Your task to perform on an android device: Open calendar and show me the second week of next month Image 0: 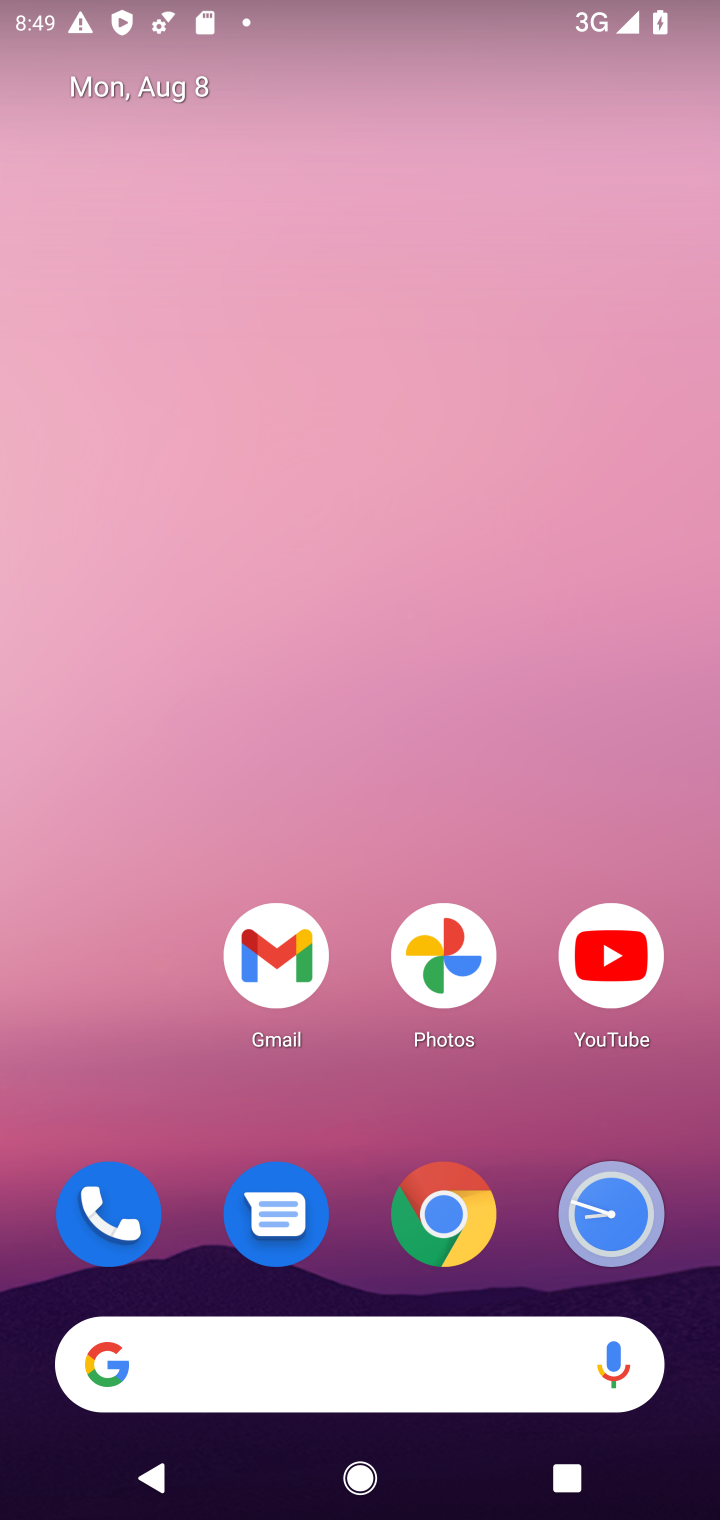
Step 0: drag from (270, 1077) to (296, 165)
Your task to perform on an android device: Open calendar and show me the second week of next month Image 1: 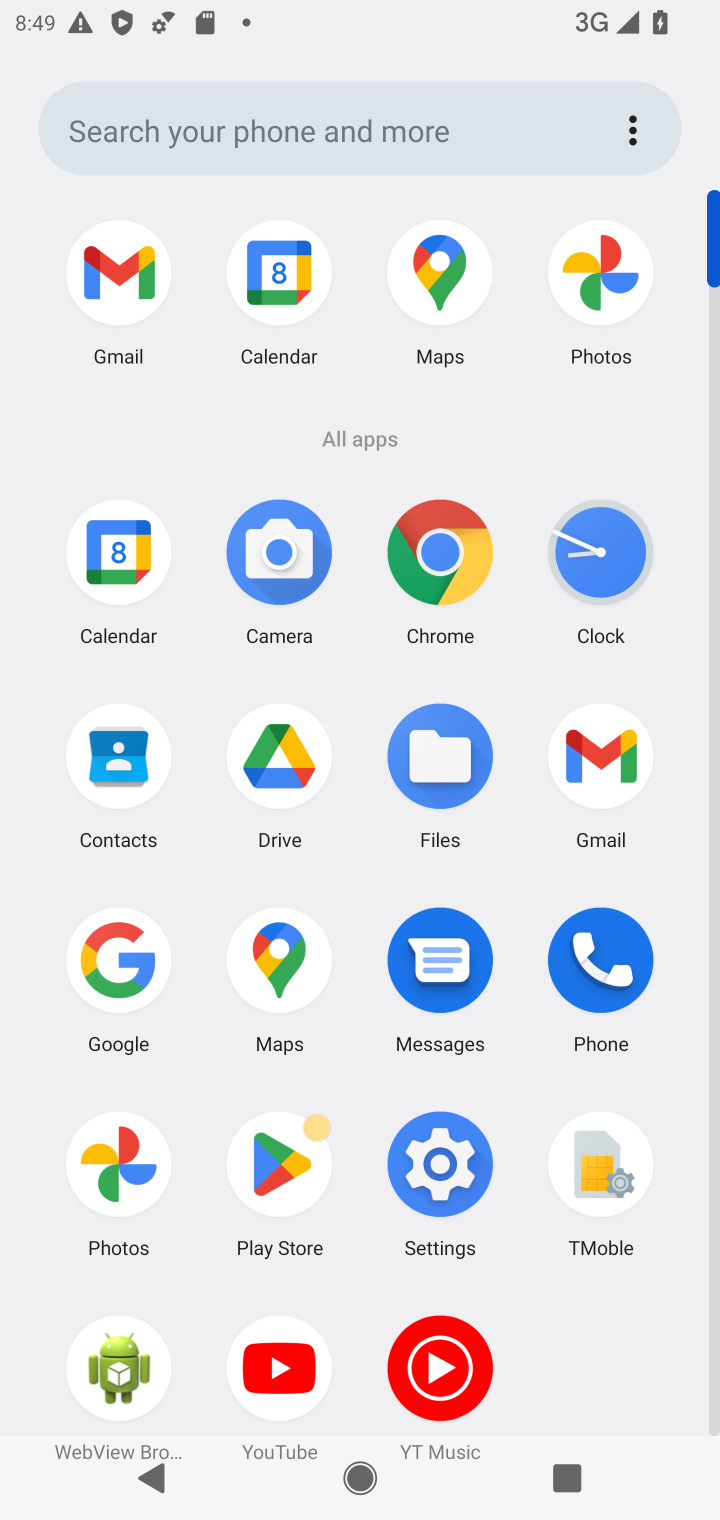
Step 1: click (273, 254)
Your task to perform on an android device: Open calendar and show me the second week of next month Image 2: 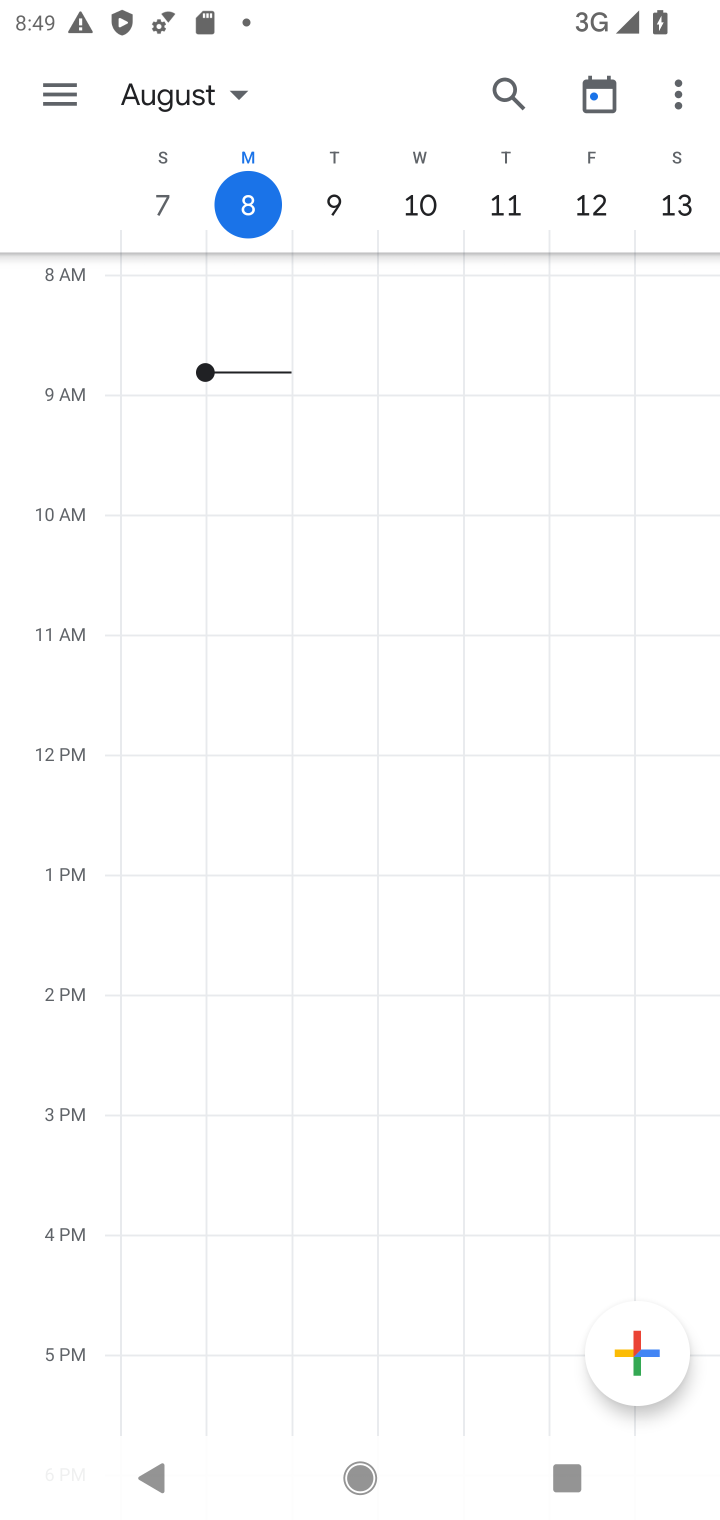
Step 2: drag from (643, 227) to (1, 110)
Your task to perform on an android device: Open calendar and show me the second week of next month Image 3: 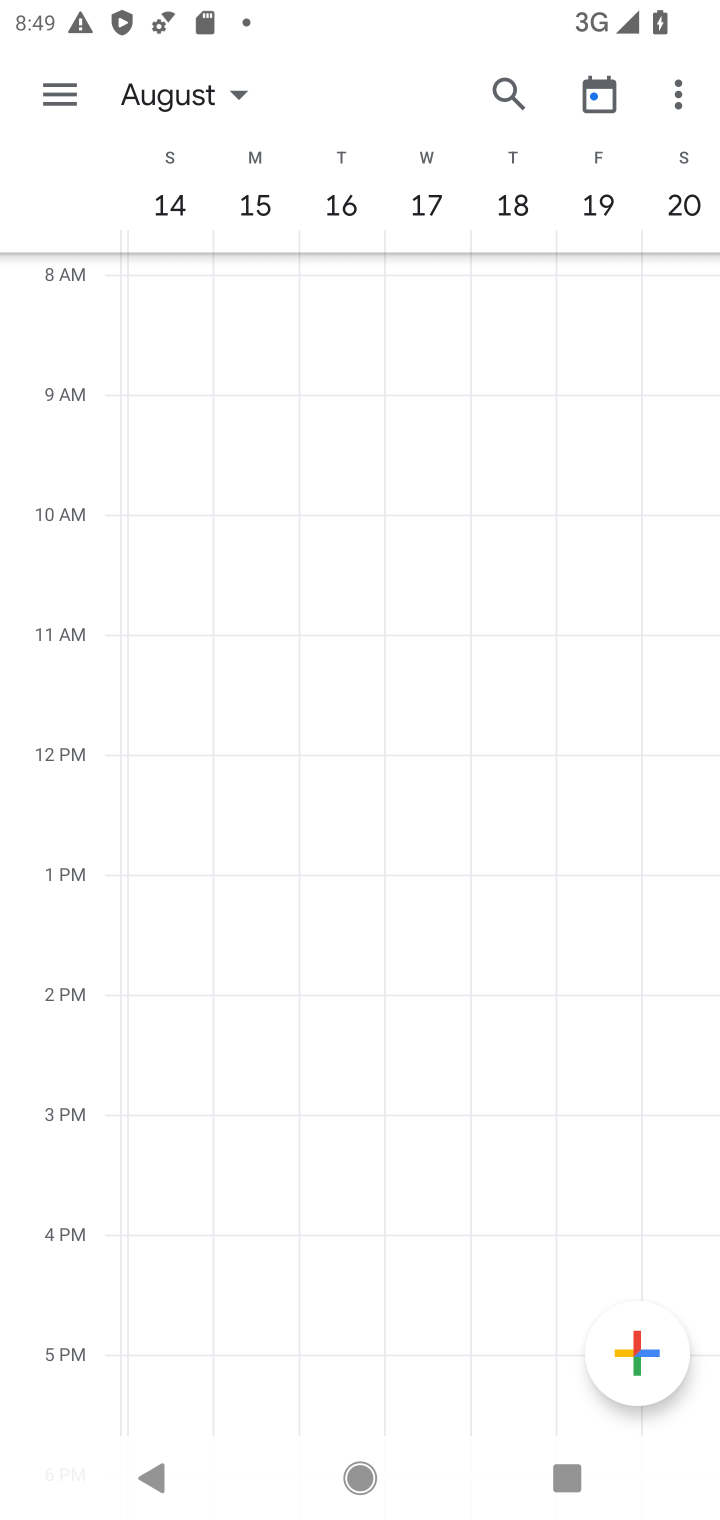
Step 3: click (45, 100)
Your task to perform on an android device: Open calendar and show me the second week of next month Image 4: 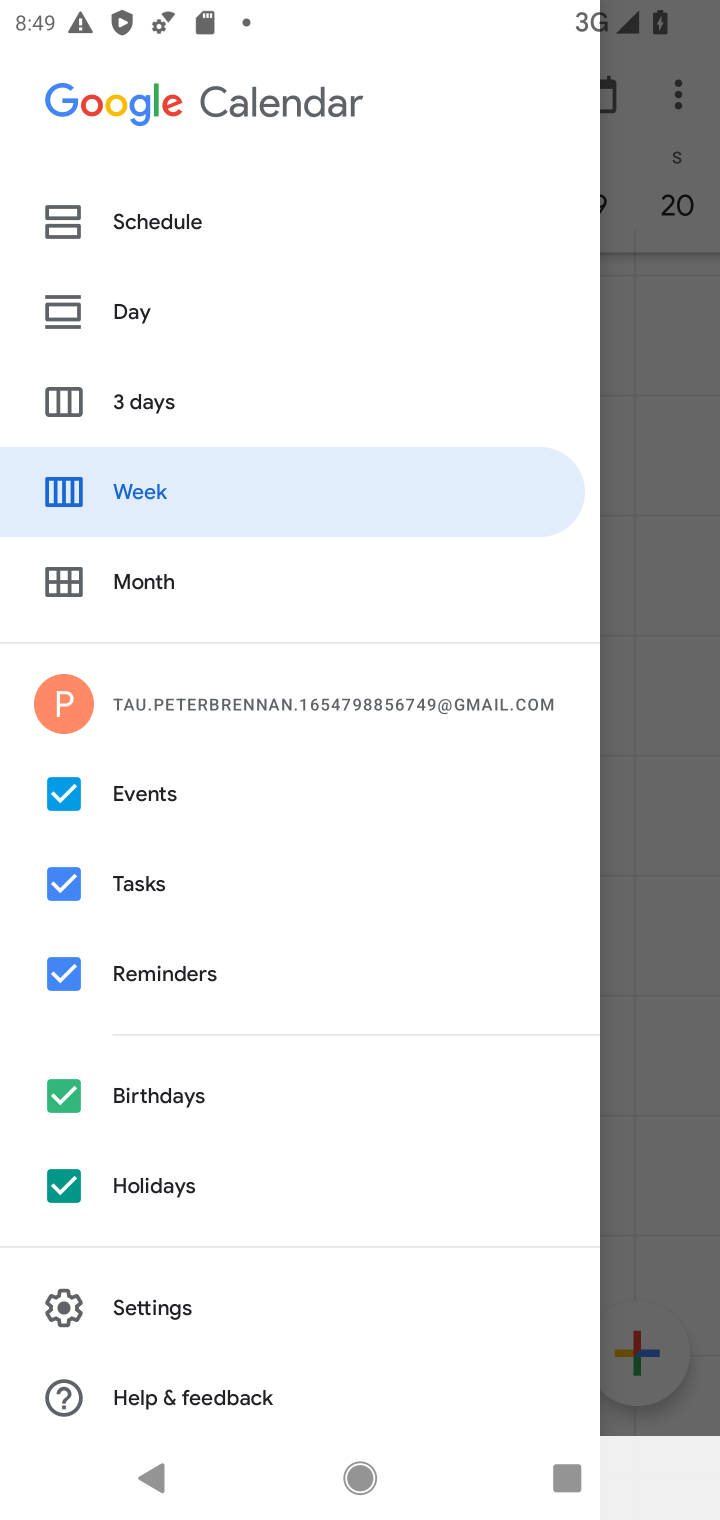
Step 4: click (175, 474)
Your task to perform on an android device: Open calendar and show me the second week of next month Image 5: 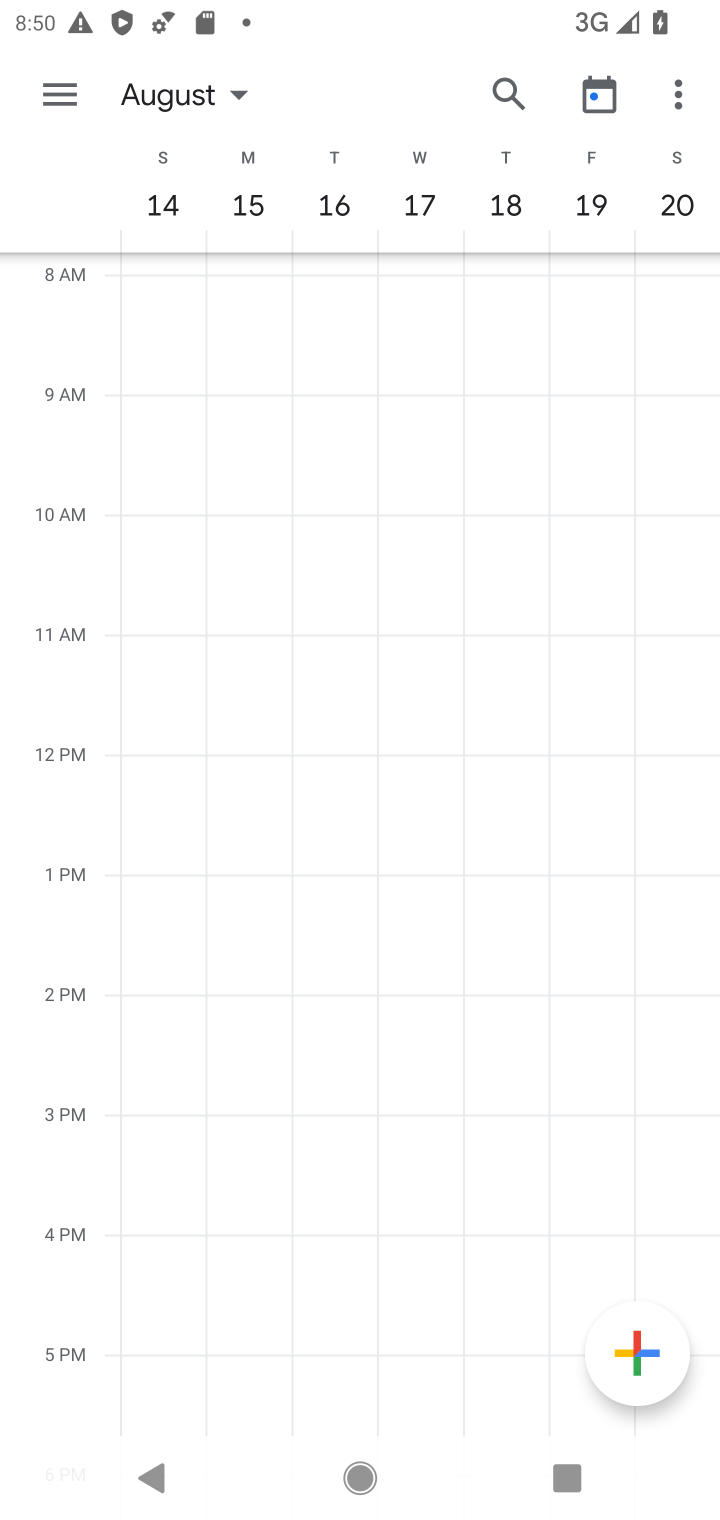
Step 5: click (246, 98)
Your task to perform on an android device: Open calendar and show me the second week of next month Image 6: 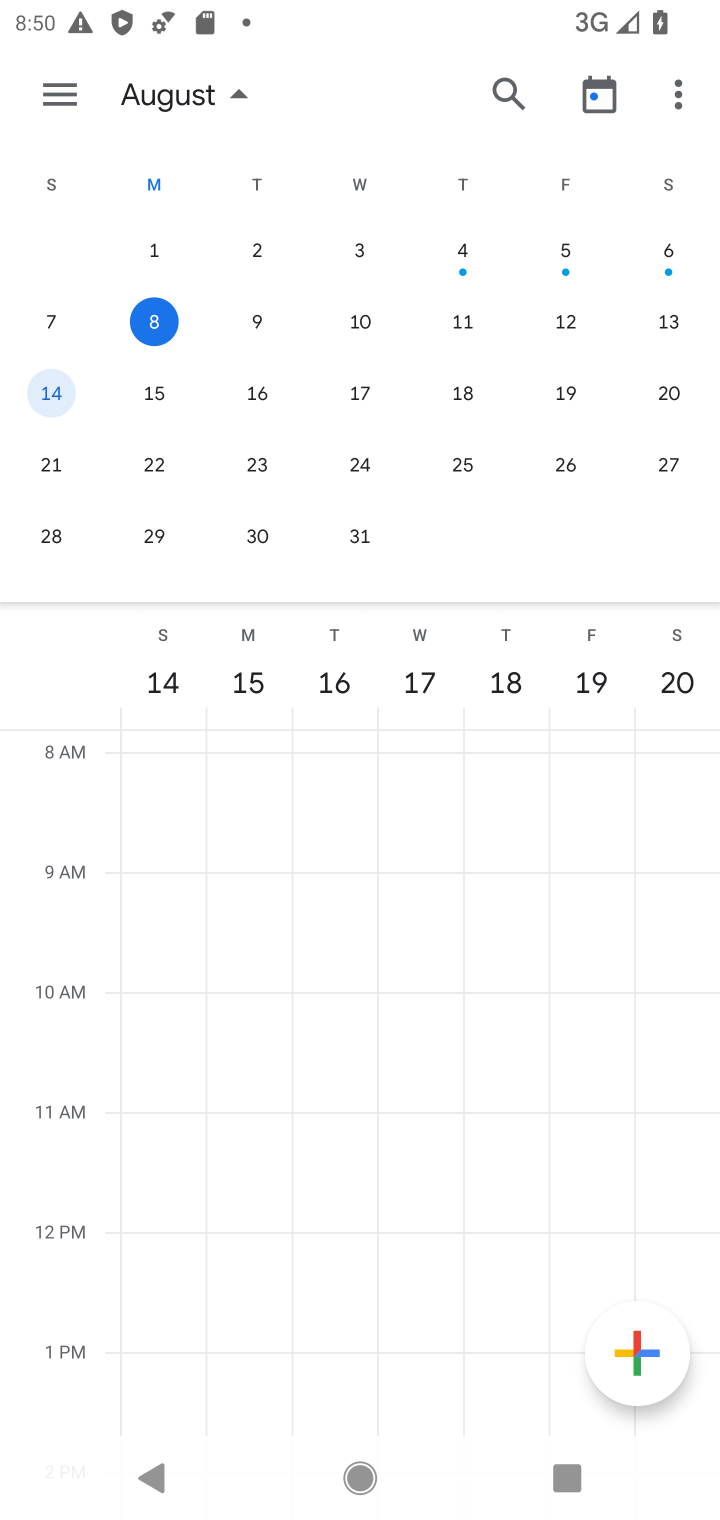
Step 6: task complete